Your task to perform on an android device: Search for seafood restaurants on Google Maps Image 0: 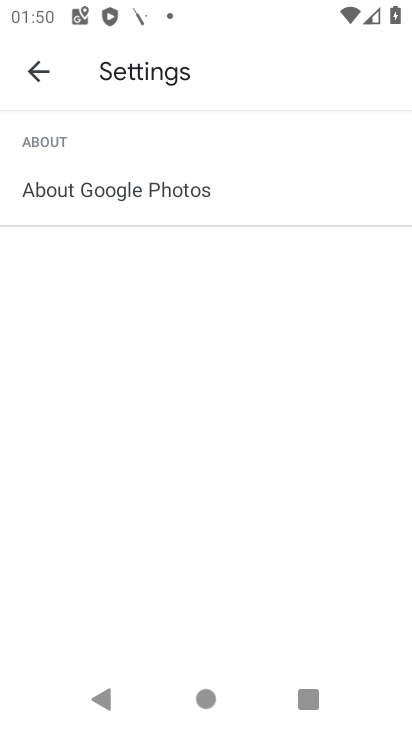
Step 0: press home button
Your task to perform on an android device: Search for seafood restaurants on Google Maps Image 1: 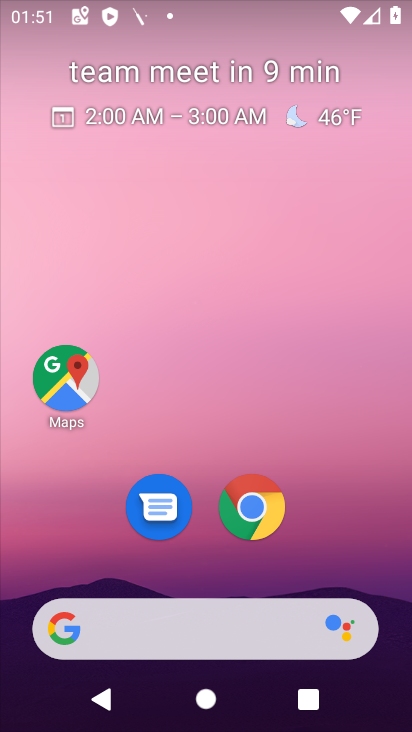
Step 1: drag from (221, 674) to (194, 291)
Your task to perform on an android device: Search for seafood restaurants on Google Maps Image 2: 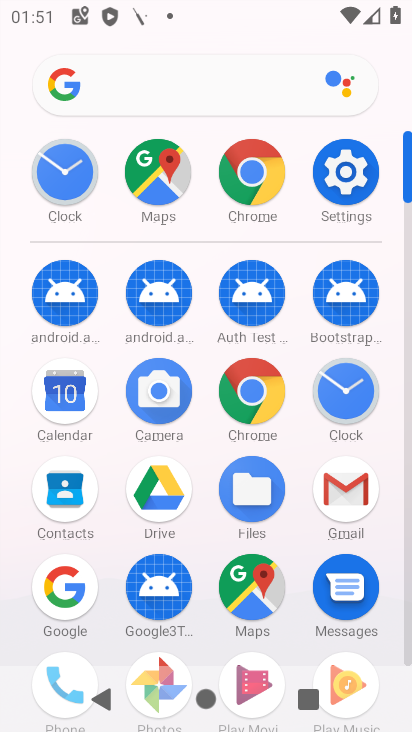
Step 2: click (161, 187)
Your task to perform on an android device: Search for seafood restaurants on Google Maps Image 3: 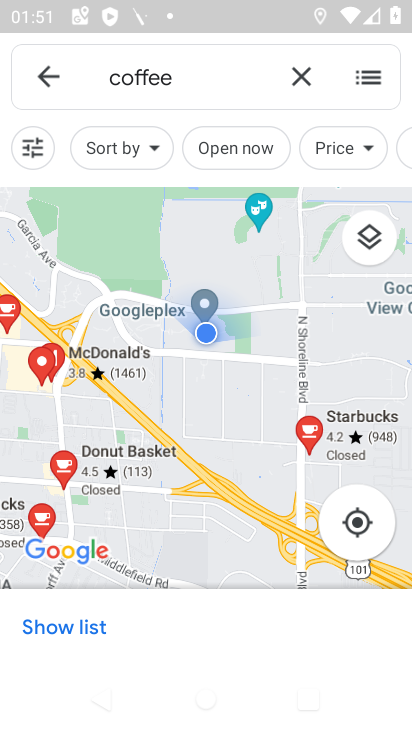
Step 3: click (296, 62)
Your task to perform on an android device: Search for seafood restaurants on Google Maps Image 4: 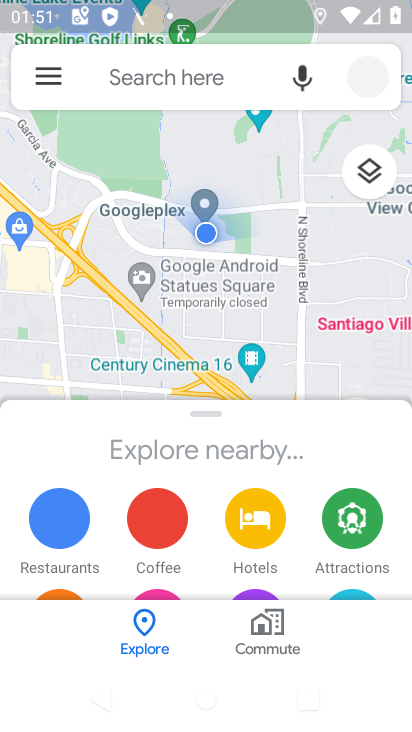
Step 4: click (193, 94)
Your task to perform on an android device: Search for seafood restaurants on Google Maps Image 5: 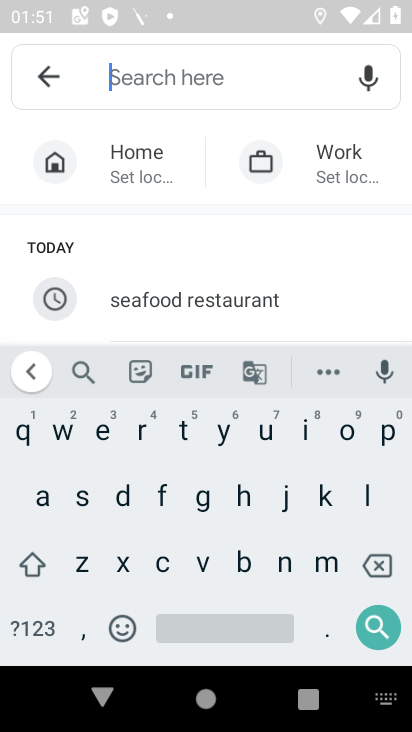
Step 5: click (75, 487)
Your task to perform on an android device: Search for seafood restaurants on Google Maps Image 6: 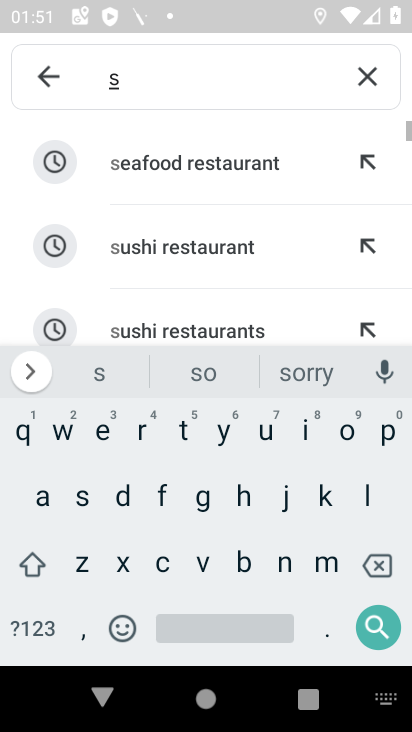
Step 6: click (99, 428)
Your task to perform on an android device: Search for seafood restaurants on Google Maps Image 7: 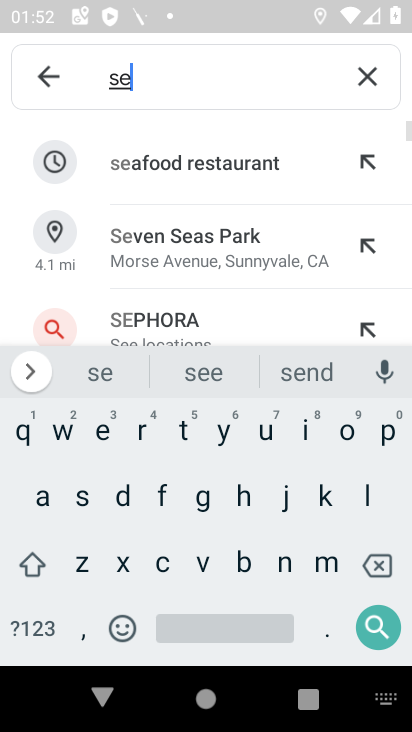
Step 7: click (192, 178)
Your task to perform on an android device: Search for seafood restaurants on Google Maps Image 8: 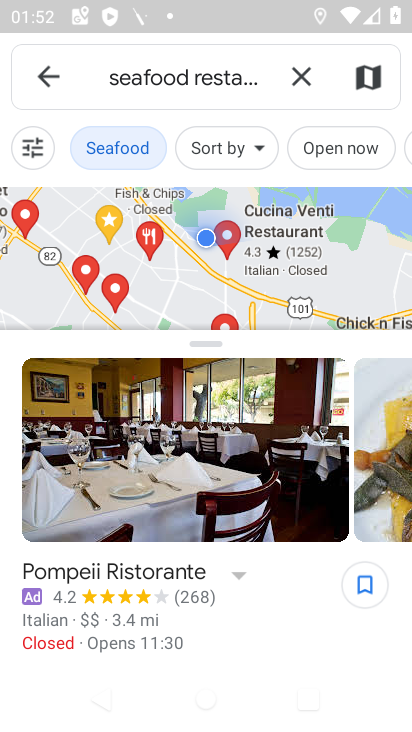
Step 8: click (174, 282)
Your task to perform on an android device: Search for seafood restaurants on Google Maps Image 9: 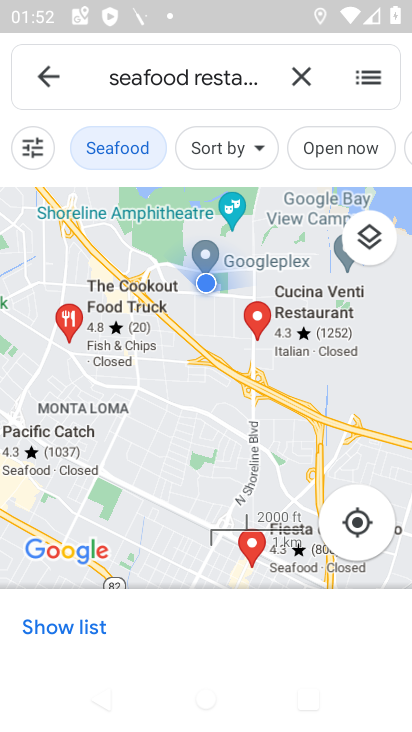
Step 9: task complete